Your task to perform on an android device: see sites visited before in the chrome app Image 0: 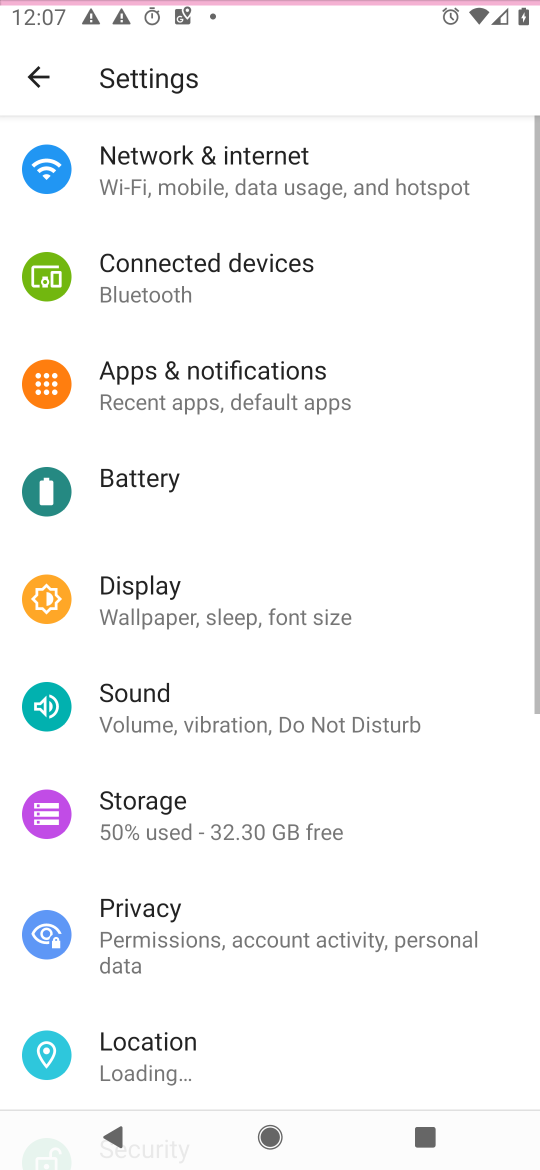
Step 0: click (485, 611)
Your task to perform on an android device: see sites visited before in the chrome app Image 1: 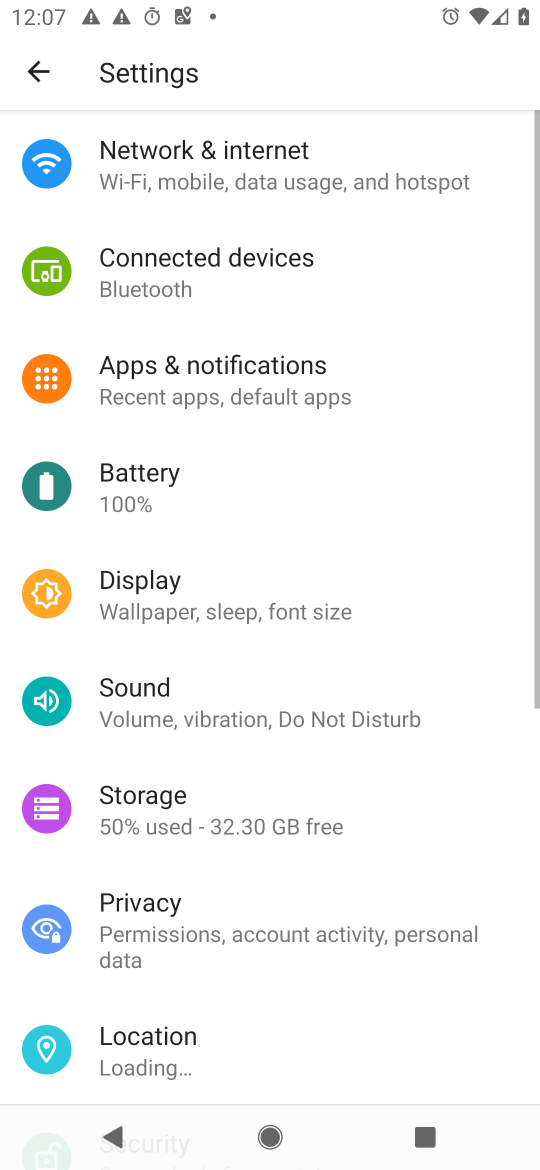
Step 1: drag from (257, 839) to (349, 213)
Your task to perform on an android device: see sites visited before in the chrome app Image 2: 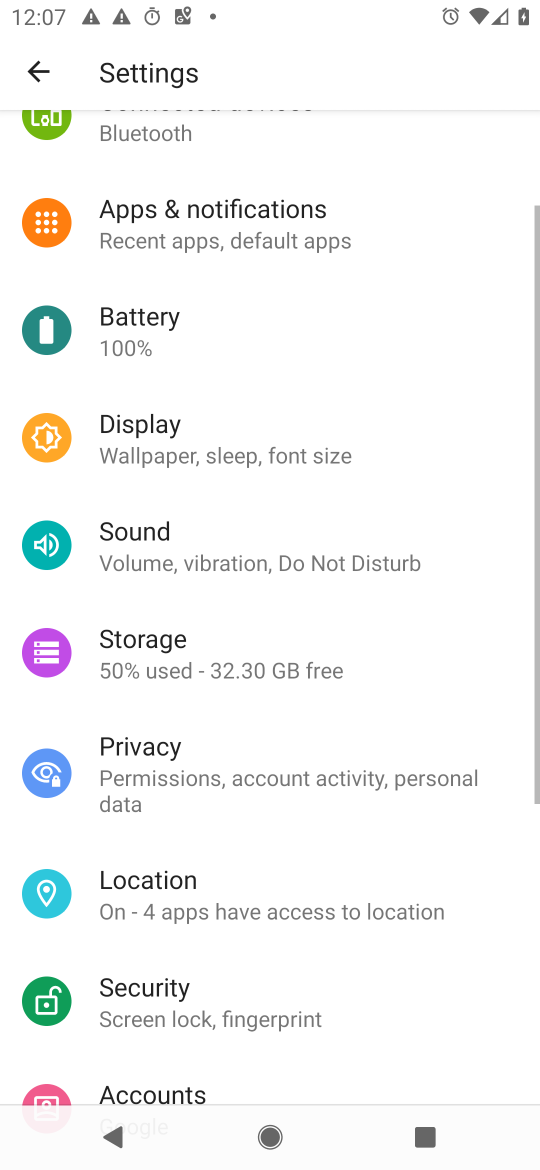
Step 2: drag from (341, 554) to (391, 255)
Your task to perform on an android device: see sites visited before in the chrome app Image 3: 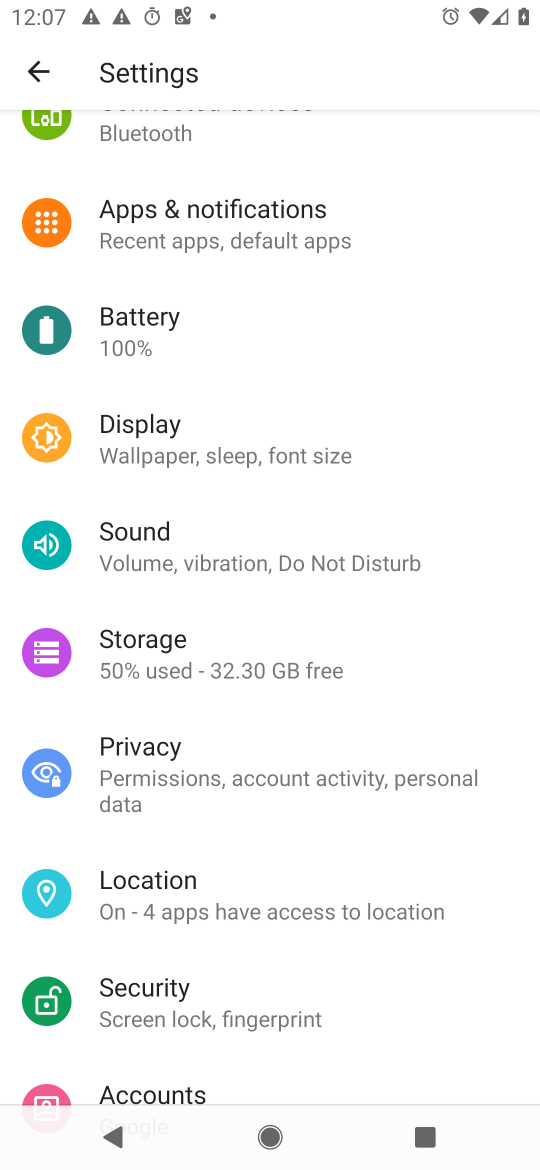
Step 3: press home button
Your task to perform on an android device: see sites visited before in the chrome app Image 4: 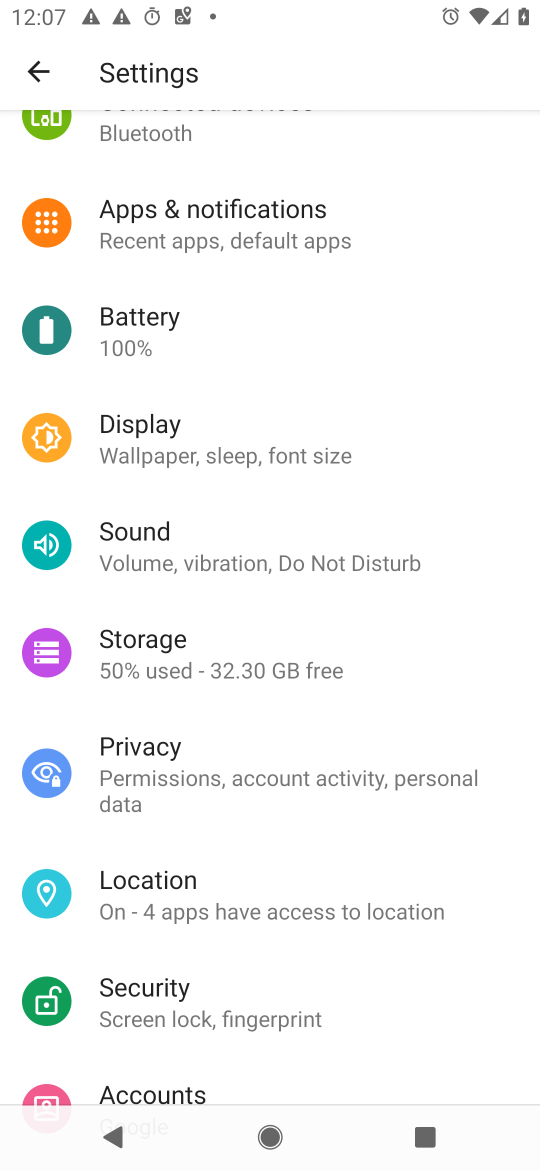
Step 4: drag from (272, 775) to (329, 268)
Your task to perform on an android device: see sites visited before in the chrome app Image 5: 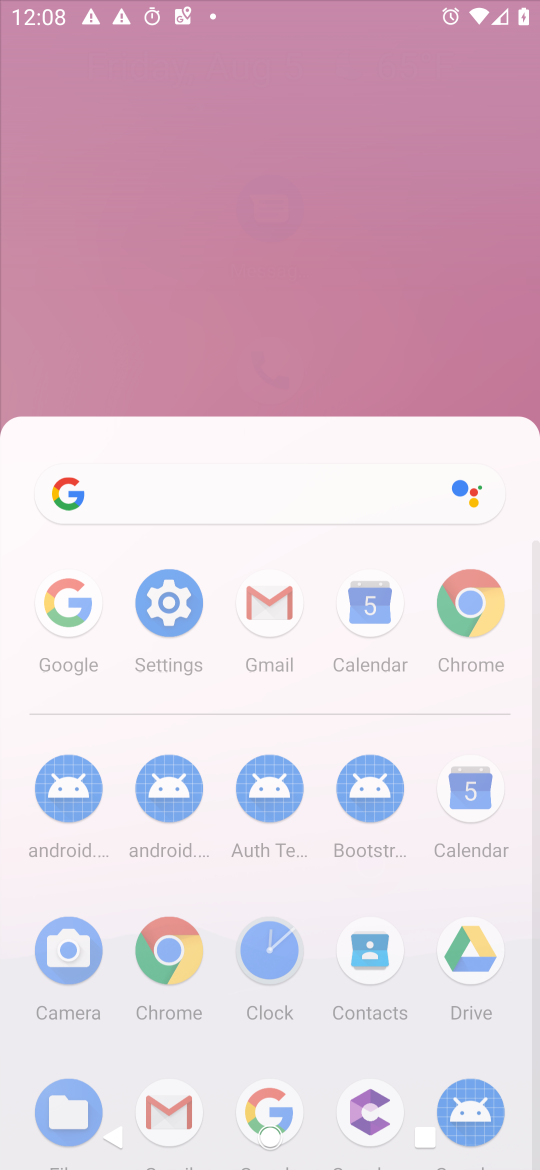
Step 5: drag from (276, 876) to (415, 137)
Your task to perform on an android device: see sites visited before in the chrome app Image 6: 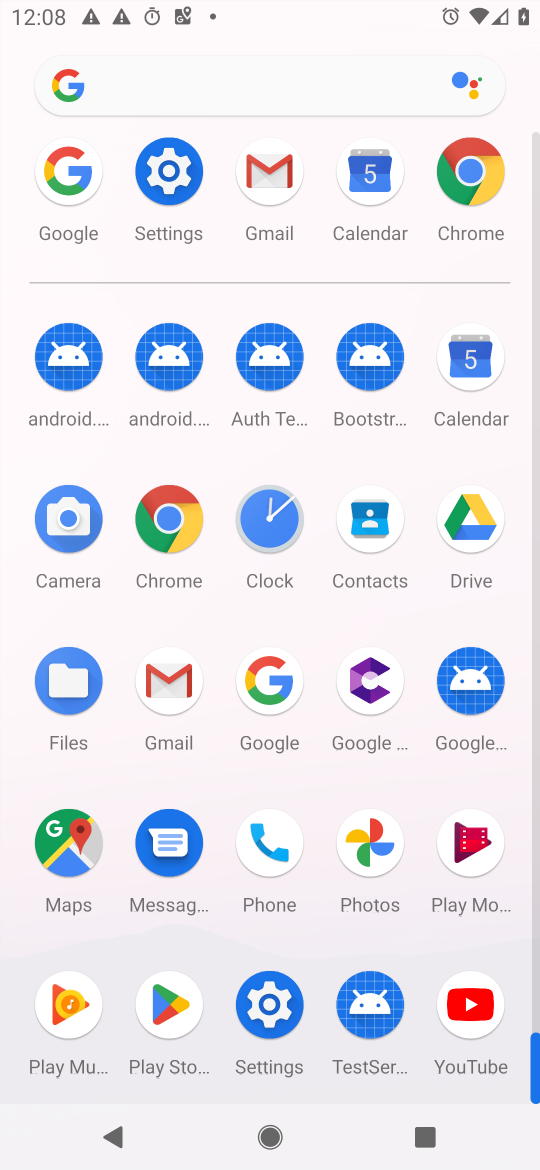
Step 6: click (159, 525)
Your task to perform on an android device: see sites visited before in the chrome app Image 7: 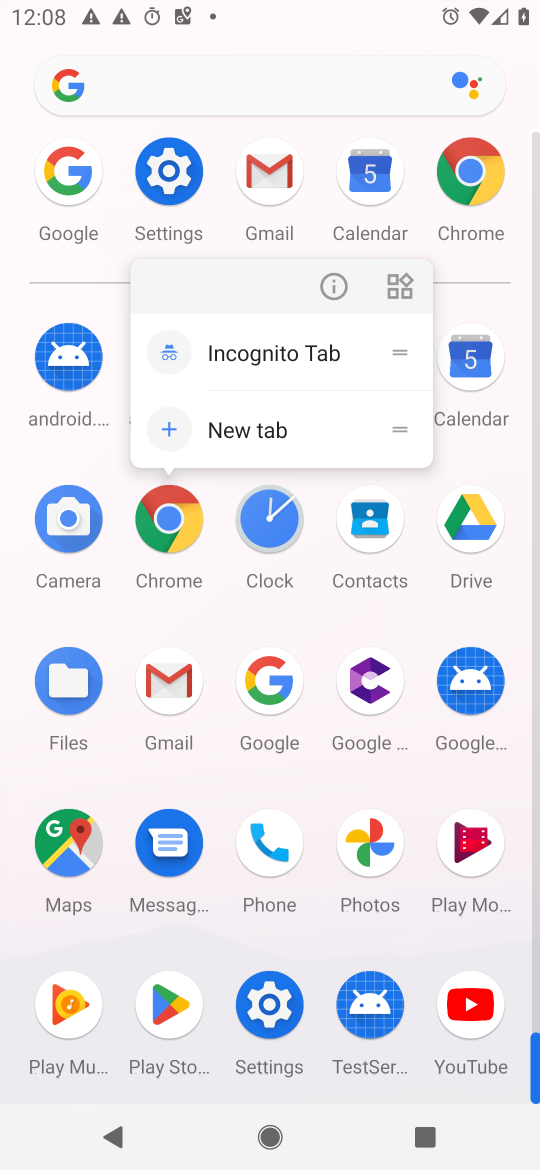
Step 7: click (346, 272)
Your task to perform on an android device: see sites visited before in the chrome app Image 8: 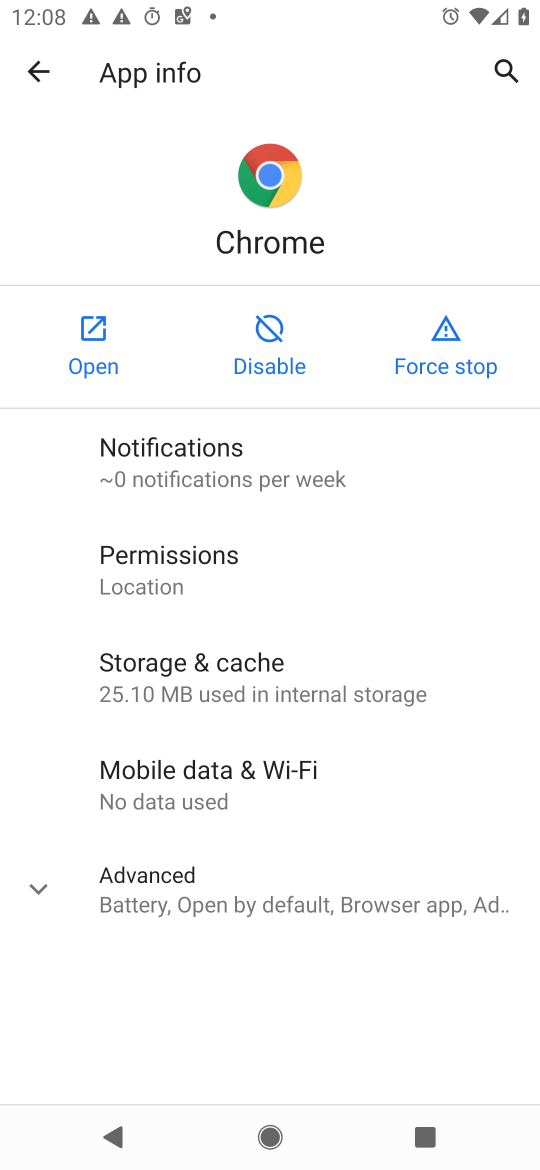
Step 8: click (76, 318)
Your task to perform on an android device: see sites visited before in the chrome app Image 9: 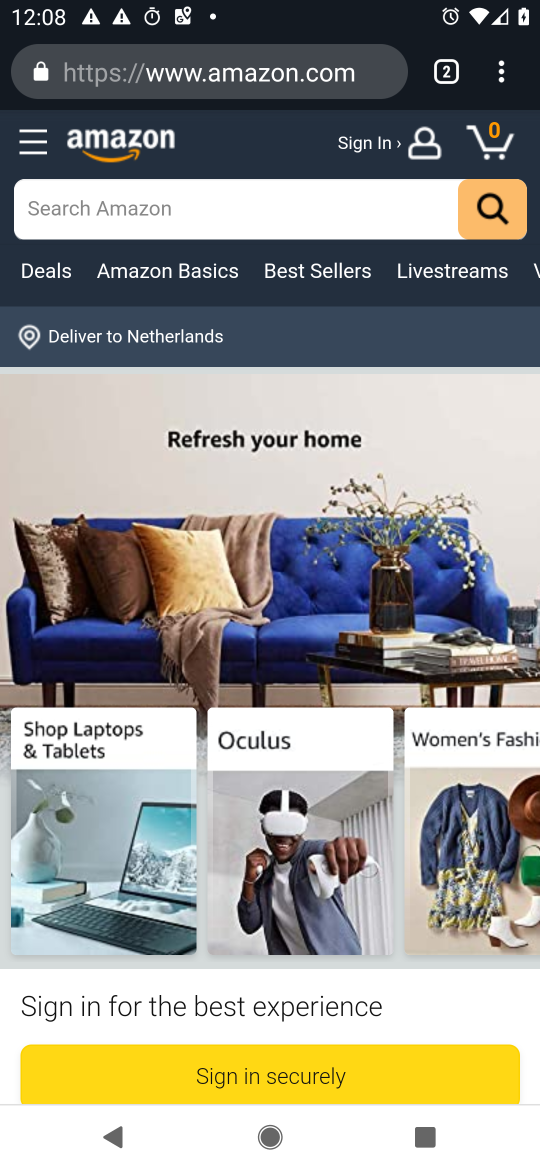
Step 9: task complete